Your task to perform on an android device: When is my next meeting? Image 0: 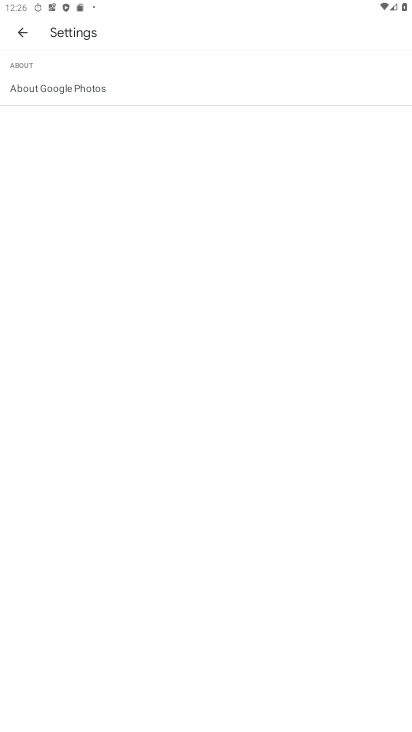
Step 0: press home button
Your task to perform on an android device: When is my next meeting? Image 1: 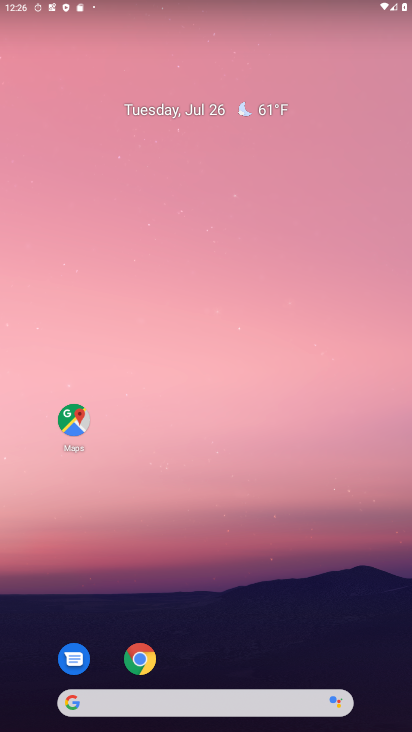
Step 1: drag from (6, 684) to (248, 0)
Your task to perform on an android device: When is my next meeting? Image 2: 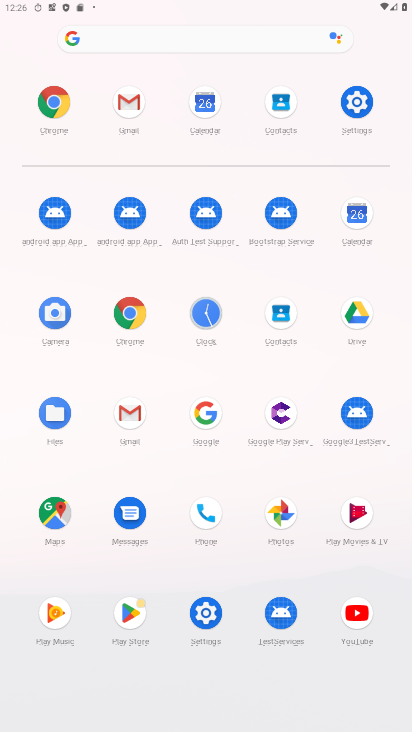
Step 2: click (351, 211)
Your task to perform on an android device: When is my next meeting? Image 3: 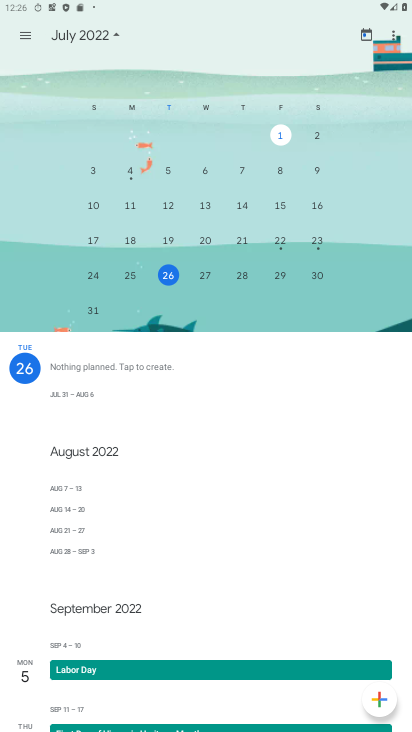
Step 3: task complete